Your task to perform on an android device: Open Google Chrome Image 0: 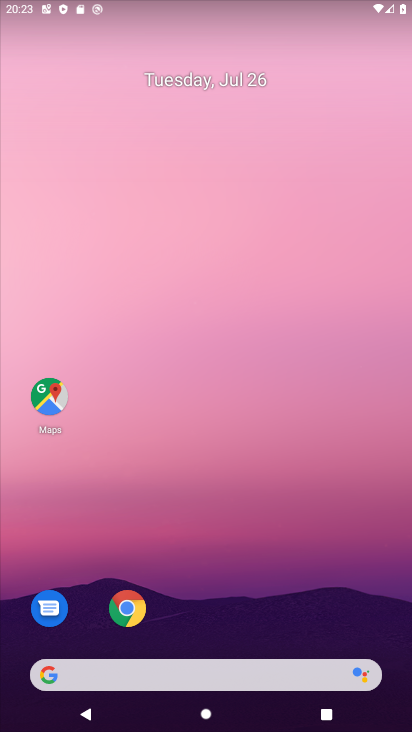
Step 0: click (123, 601)
Your task to perform on an android device: Open Google Chrome Image 1: 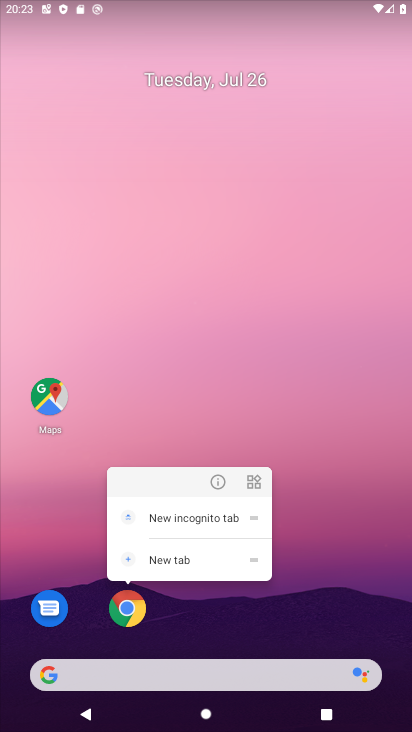
Step 1: click (128, 602)
Your task to perform on an android device: Open Google Chrome Image 2: 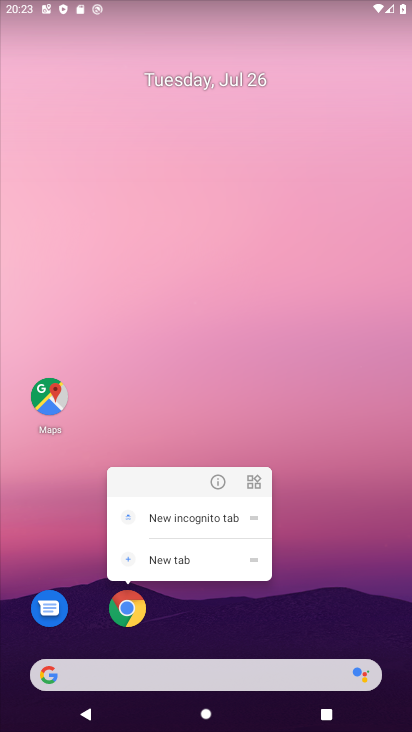
Step 2: click (125, 603)
Your task to perform on an android device: Open Google Chrome Image 3: 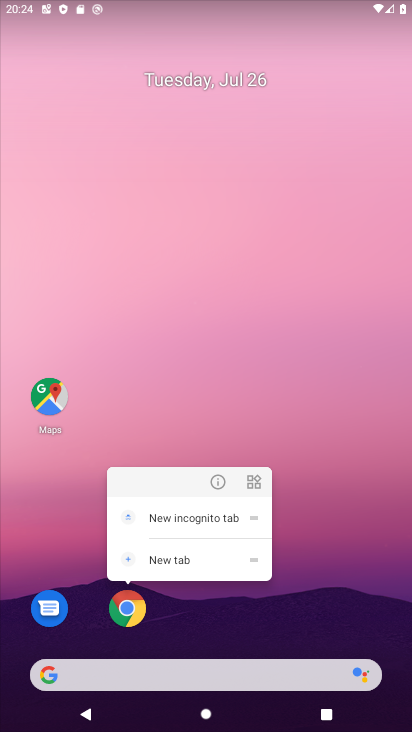
Step 3: click (121, 609)
Your task to perform on an android device: Open Google Chrome Image 4: 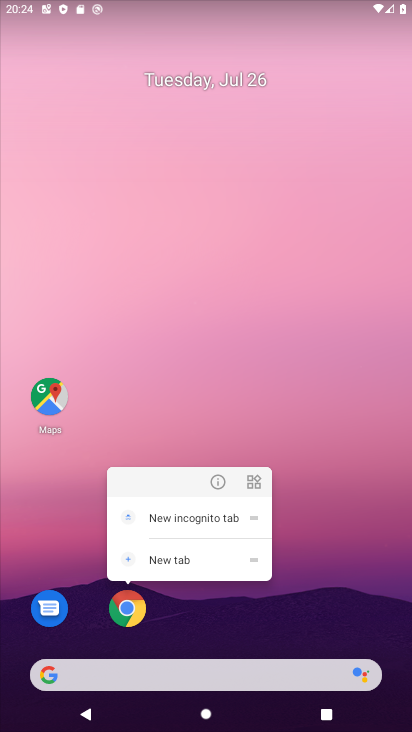
Step 4: click (121, 609)
Your task to perform on an android device: Open Google Chrome Image 5: 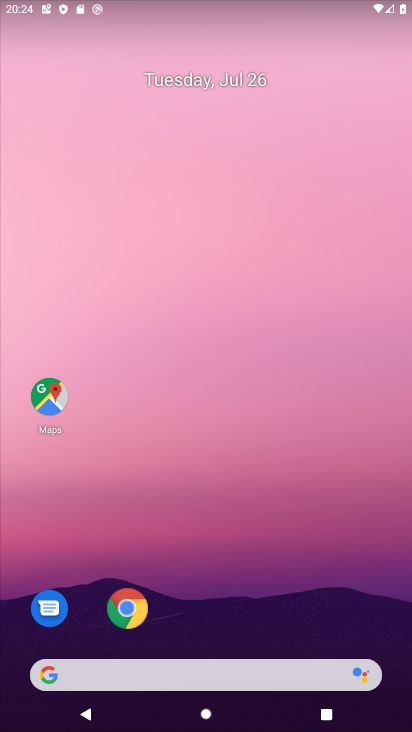
Step 5: click (121, 609)
Your task to perform on an android device: Open Google Chrome Image 6: 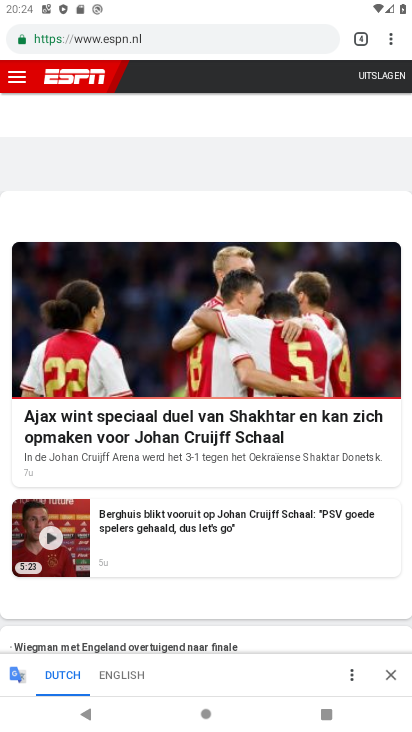
Step 6: click (396, 36)
Your task to perform on an android device: Open Google Chrome Image 7: 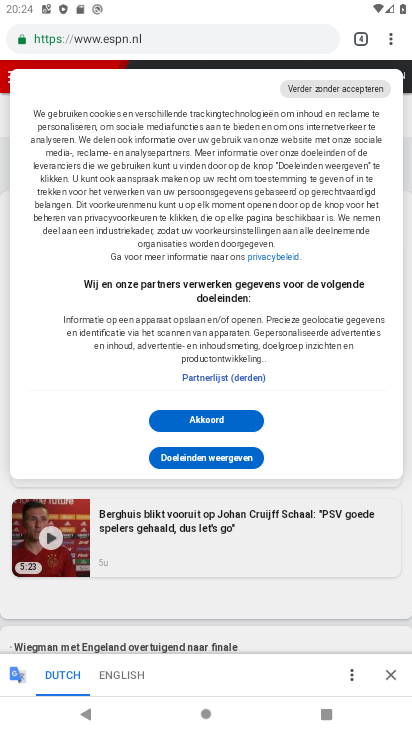
Step 7: click (391, 30)
Your task to perform on an android device: Open Google Chrome Image 8: 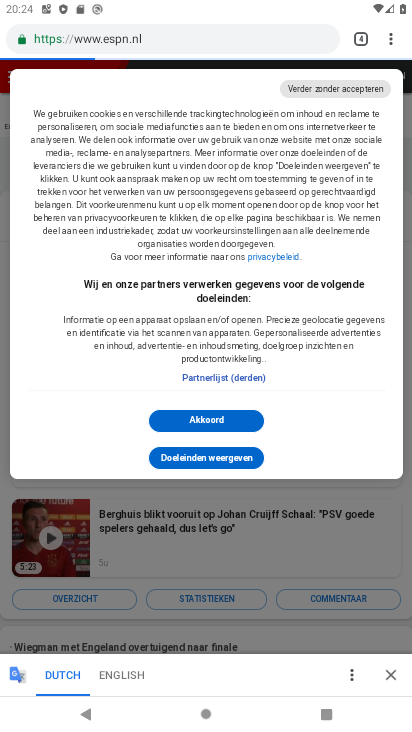
Step 8: click (388, 34)
Your task to perform on an android device: Open Google Chrome Image 9: 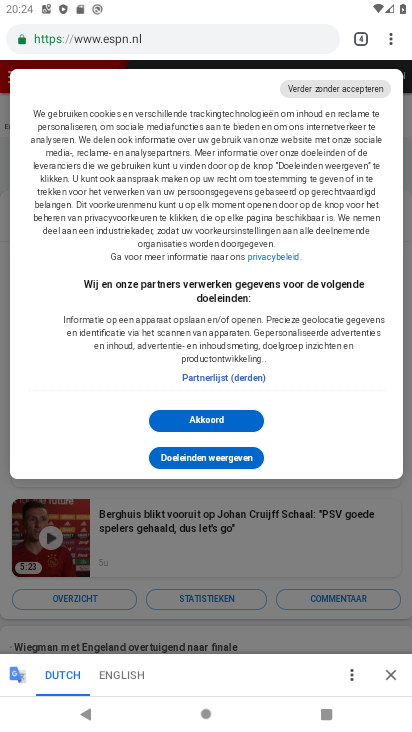
Step 9: click (388, 34)
Your task to perform on an android device: Open Google Chrome Image 10: 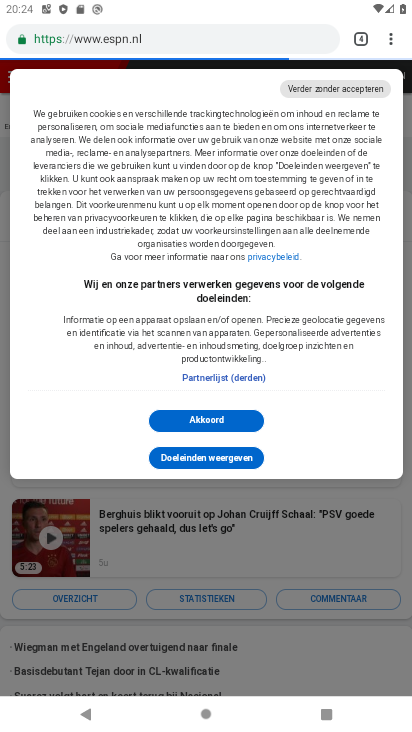
Step 10: click (388, 34)
Your task to perform on an android device: Open Google Chrome Image 11: 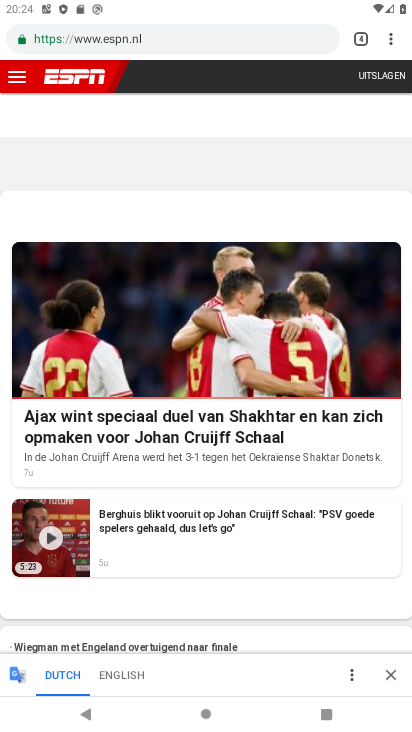
Step 11: task complete